Your task to perform on an android device: create a new album in the google photos Image 0: 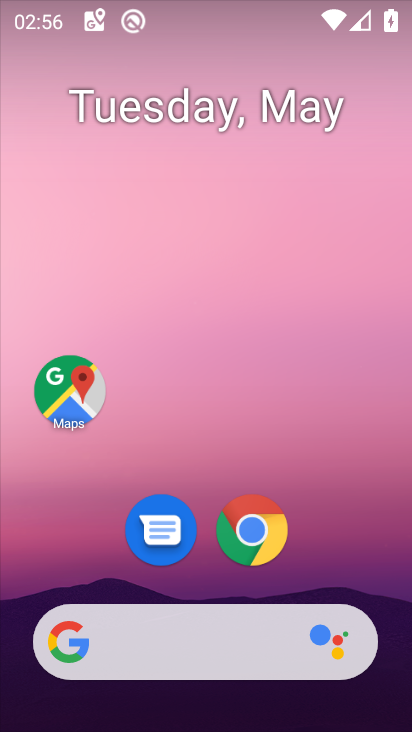
Step 0: click (378, 550)
Your task to perform on an android device: create a new album in the google photos Image 1: 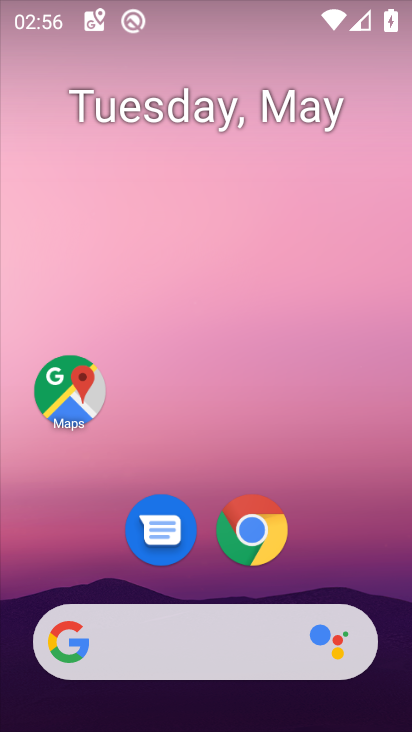
Step 1: press home button
Your task to perform on an android device: create a new album in the google photos Image 2: 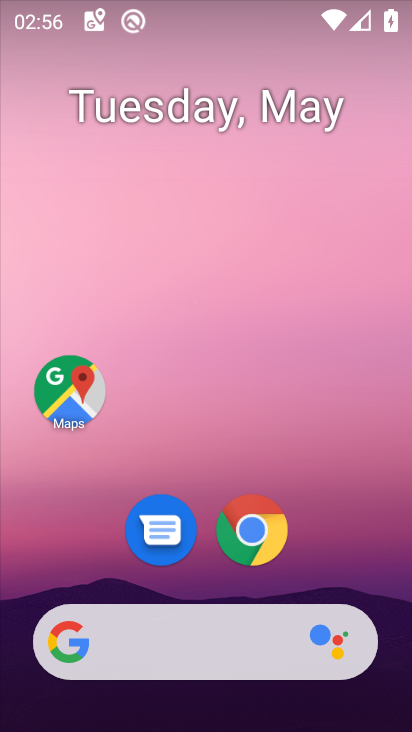
Step 2: drag from (85, 584) to (287, 256)
Your task to perform on an android device: create a new album in the google photos Image 3: 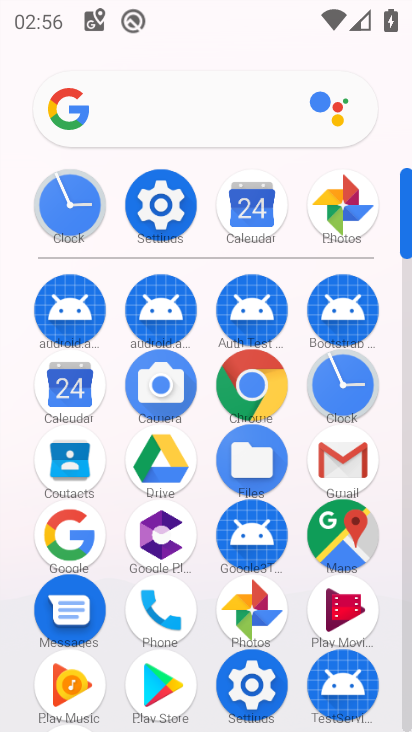
Step 3: click (338, 196)
Your task to perform on an android device: create a new album in the google photos Image 4: 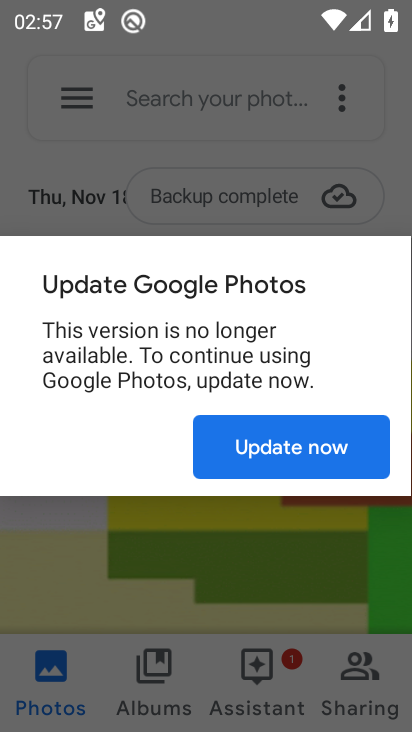
Step 4: task complete